Your task to perform on an android device: Is it going to rain today? Image 0: 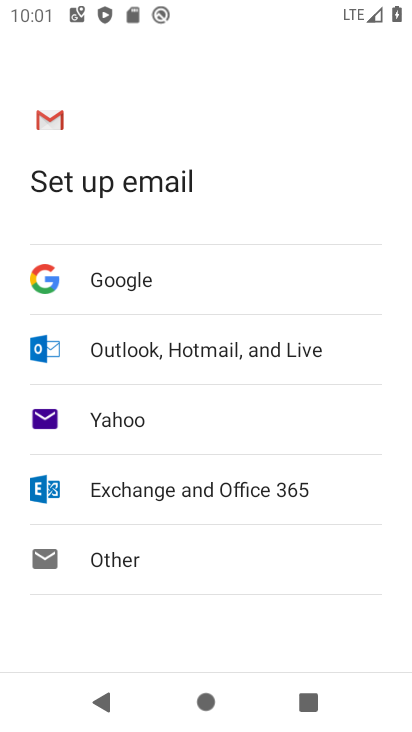
Step 0: press home button
Your task to perform on an android device: Is it going to rain today? Image 1: 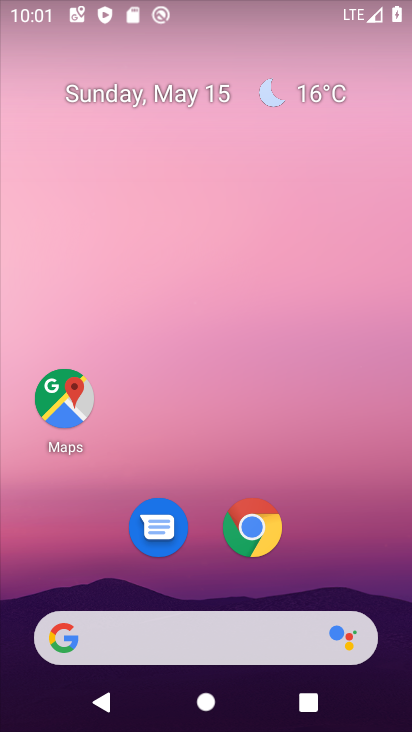
Step 1: click (317, 98)
Your task to perform on an android device: Is it going to rain today? Image 2: 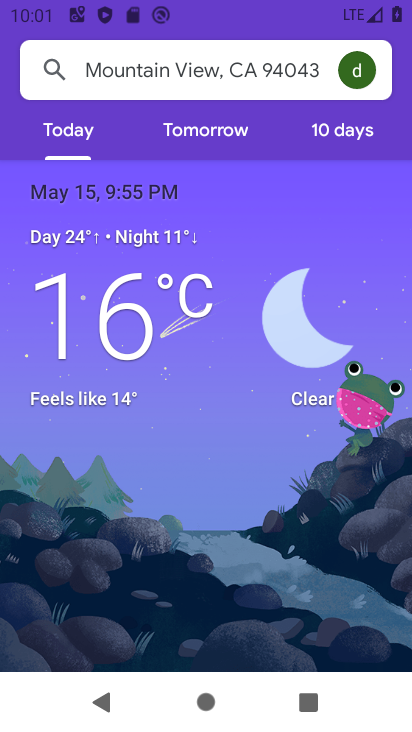
Step 2: task complete